Your task to perform on an android device: add a contact in the contacts app Image 0: 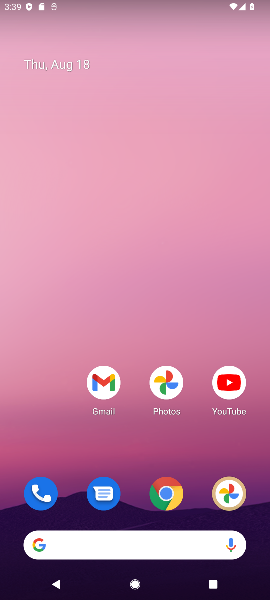
Step 0: drag from (170, 464) to (187, 28)
Your task to perform on an android device: add a contact in the contacts app Image 1: 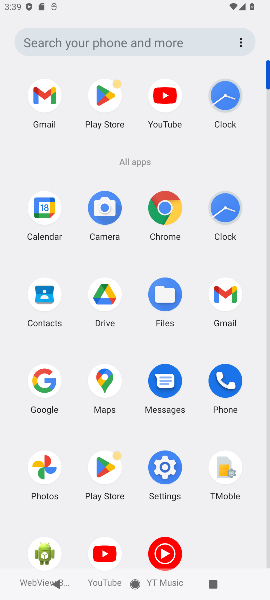
Step 1: click (47, 287)
Your task to perform on an android device: add a contact in the contacts app Image 2: 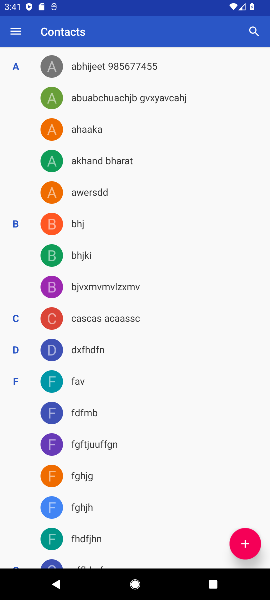
Step 2: click (249, 545)
Your task to perform on an android device: add a contact in the contacts app Image 3: 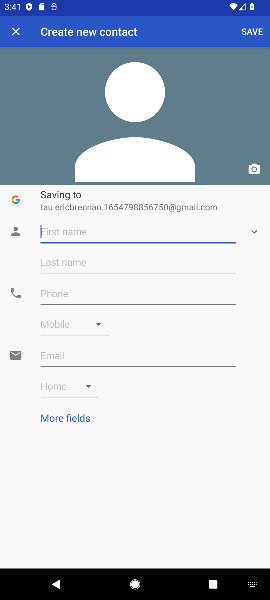
Step 3: type "vvfg"
Your task to perform on an android device: add a contact in the contacts app Image 4: 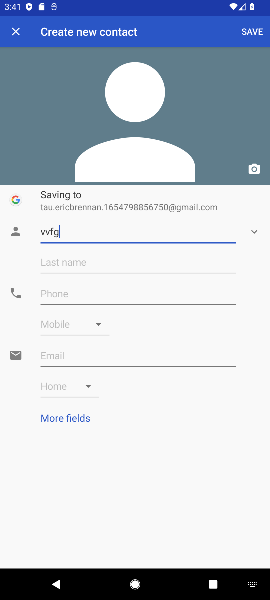
Step 4: click (76, 288)
Your task to perform on an android device: add a contact in the contacts app Image 5: 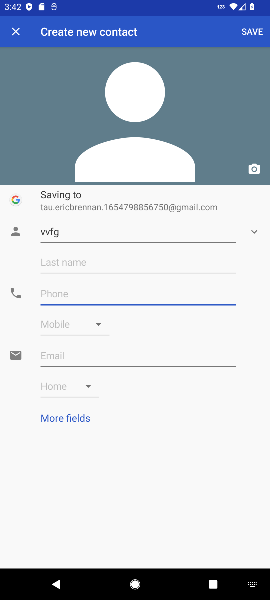
Step 5: type "886"
Your task to perform on an android device: add a contact in the contacts app Image 6: 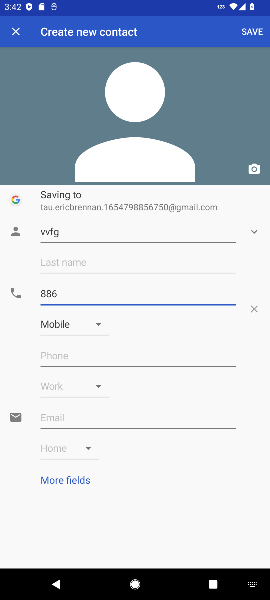
Step 6: click (252, 29)
Your task to perform on an android device: add a contact in the contacts app Image 7: 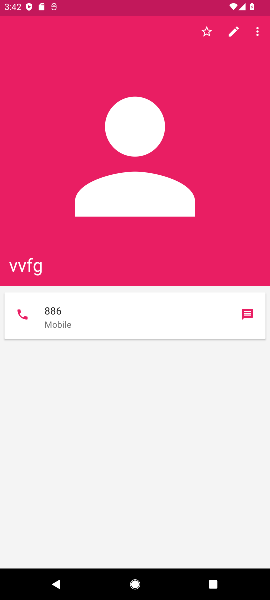
Step 7: task complete